Your task to perform on an android device: Open Google Chrome Image 0: 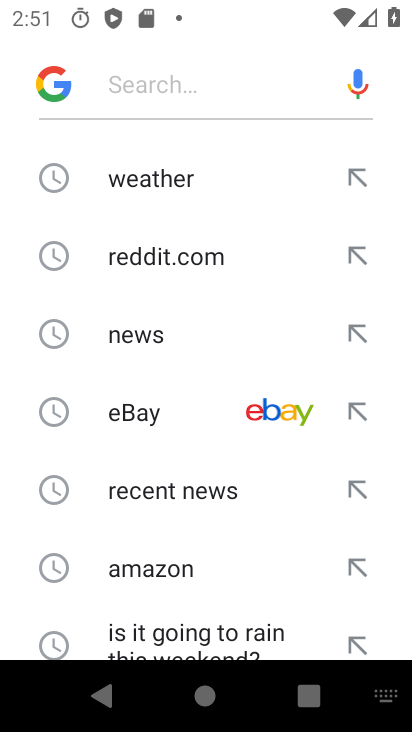
Step 0: press home button
Your task to perform on an android device: Open Google Chrome Image 1: 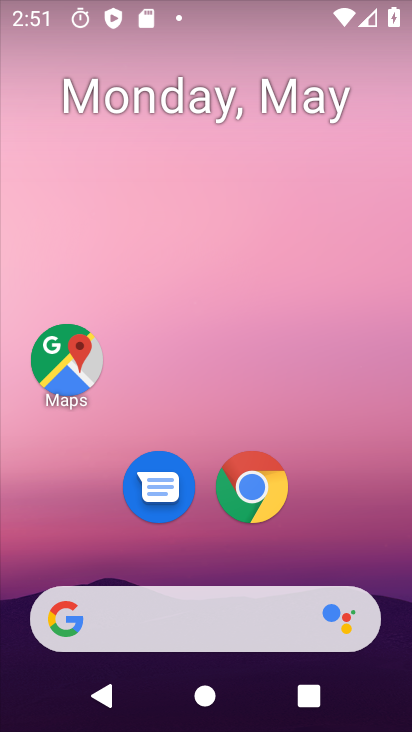
Step 1: click (252, 492)
Your task to perform on an android device: Open Google Chrome Image 2: 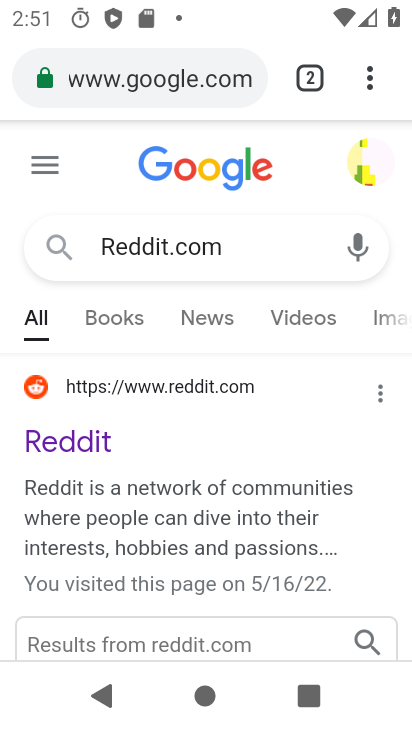
Step 2: task complete